Your task to perform on an android device: change the clock style Image 0: 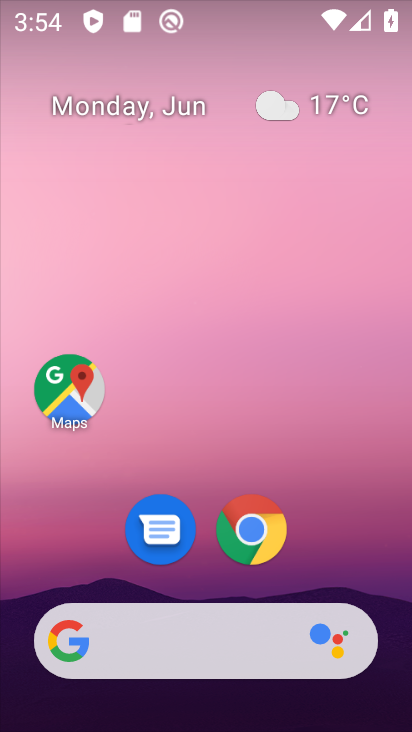
Step 0: drag from (341, 550) to (288, 12)
Your task to perform on an android device: change the clock style Image 1: 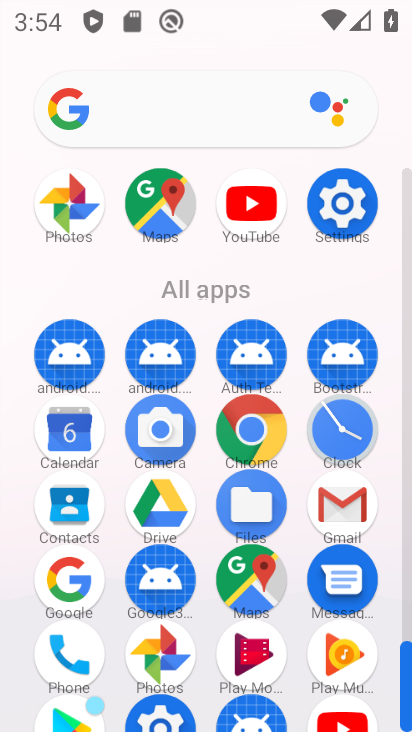
Step 1: click (341, 428)
Your task to perform on an android device: change the clock style Image 2: 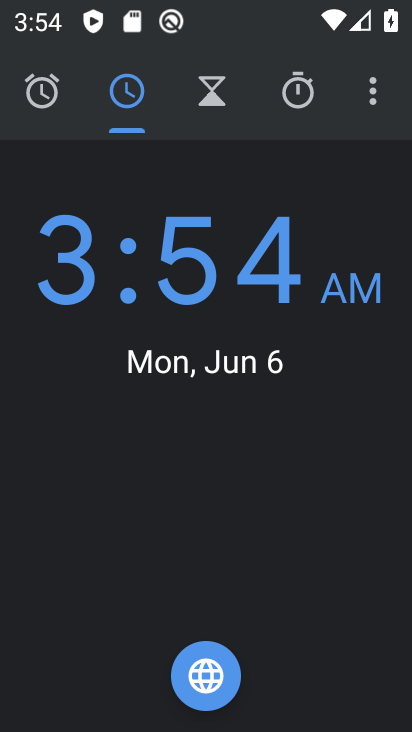
Step 2: click (378, 90)
Your task to perform on an android device: change the clock style Image 3: 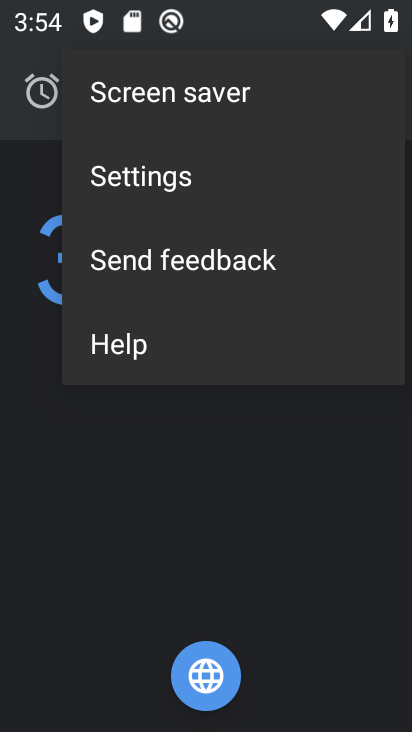
Step 3: click (137, 177)
Your task to perform on an android device: change the clock style Image 4: 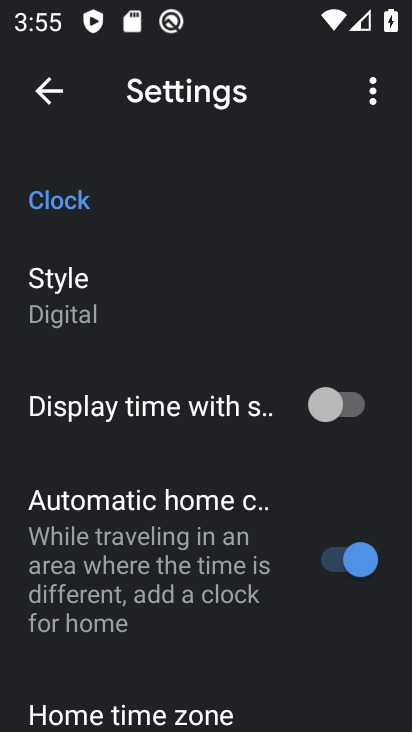
Step 4: click (141, 308)
Your task to perform on an android device: change the clock style Image 5: 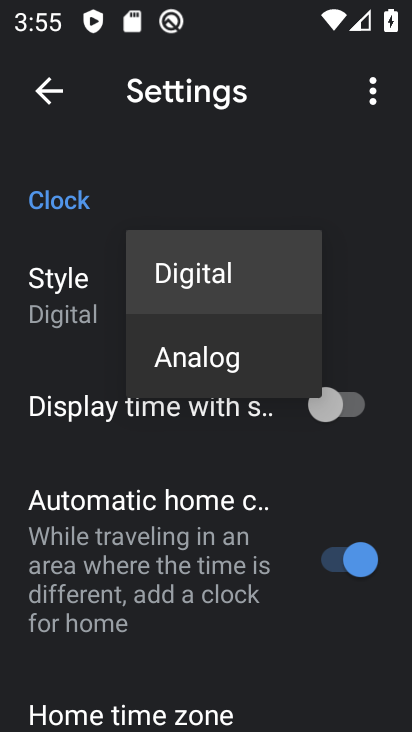
Step 5: click (211, 351)
Your task to perform on an android device: change the clock style Image 6: 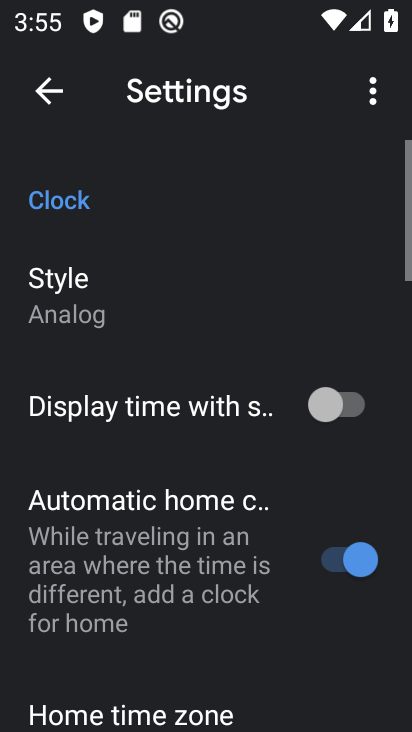
Step 6: task complete